Your task to perform on an android device: Open location settings Image 0: 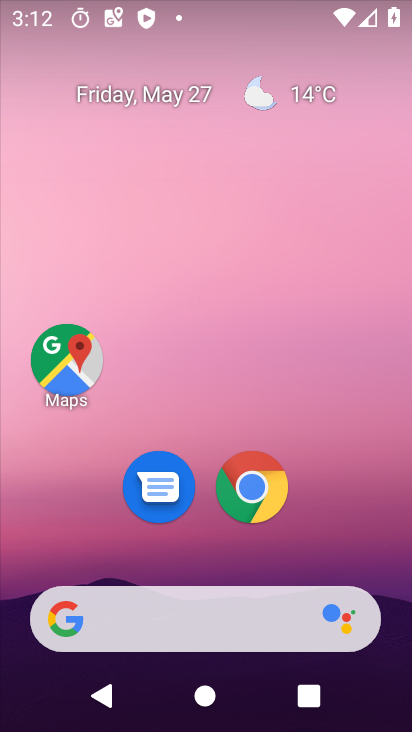
Step 0: click (303, 94)
Your task to perform on an android device: Open location settings Image 1: 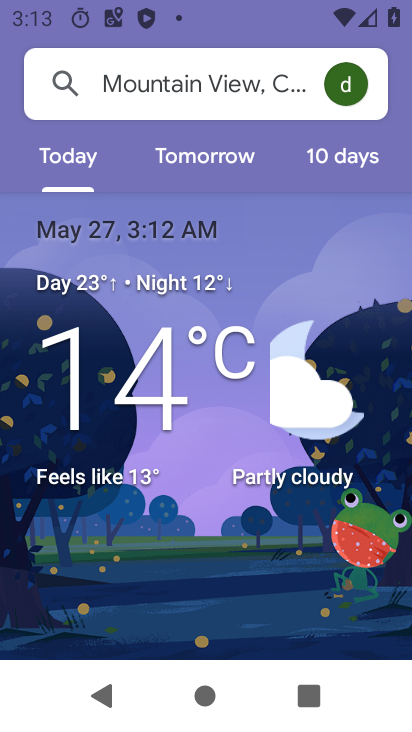
Step 1: press home button
Your task to perform on an android device: Open location settings Image 2: 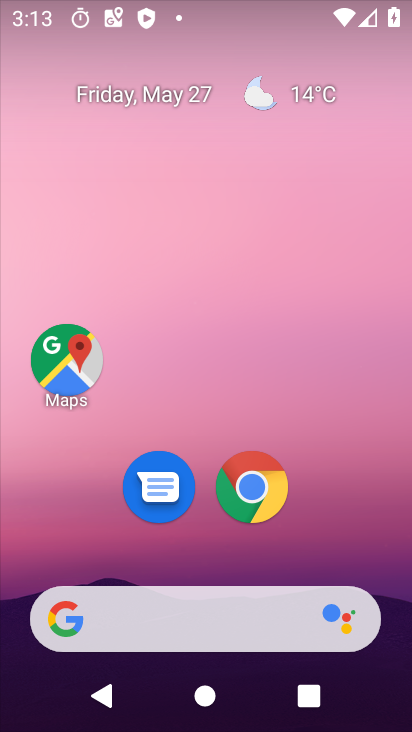
Step 2: drag from (335, 468) to (215, 4)
Your task to perform on an android device: Open location settings Image 3: 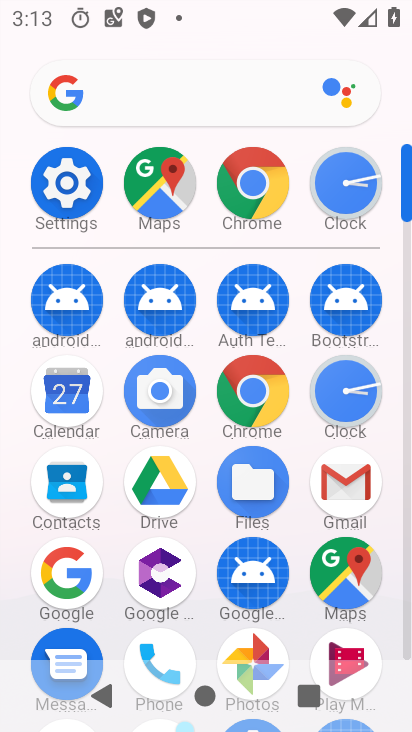
Step 3: click (55, 173)
Your task to perform on an android device: Open location settings Image 4: 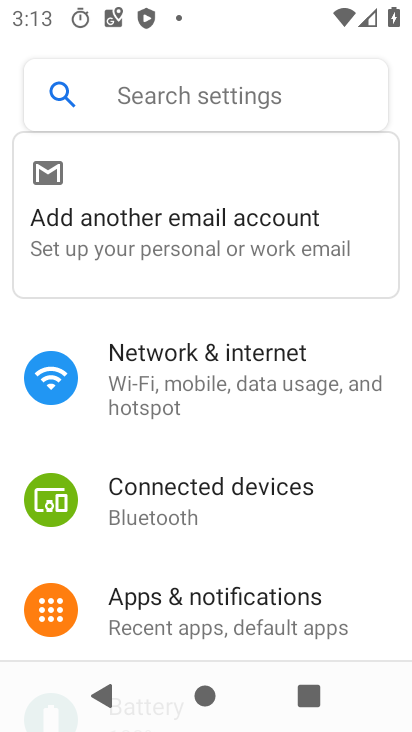
Step 4: drag from (198, 595) to (352, 158)
Your task to perform on an android device: Open location settings Image 5: 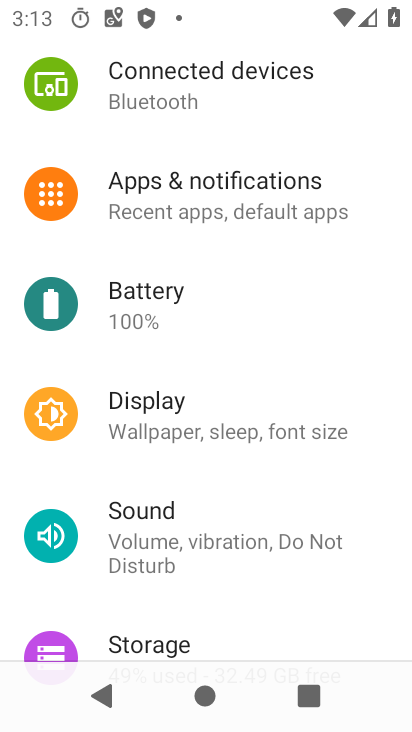
Step 5: drag from (215, 484) to (256, 97)
Your task to perform on an android device: Open location settings Image 6: 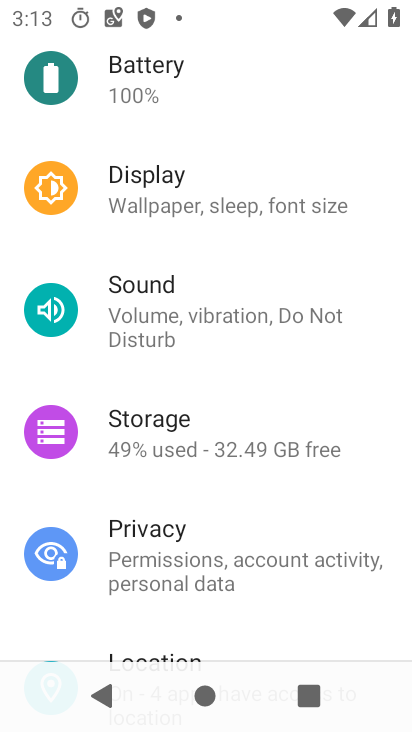
Step 6: drag from (142, 446) to (263, 136)
Your task to perform on an android device: Open location settings Image 7: 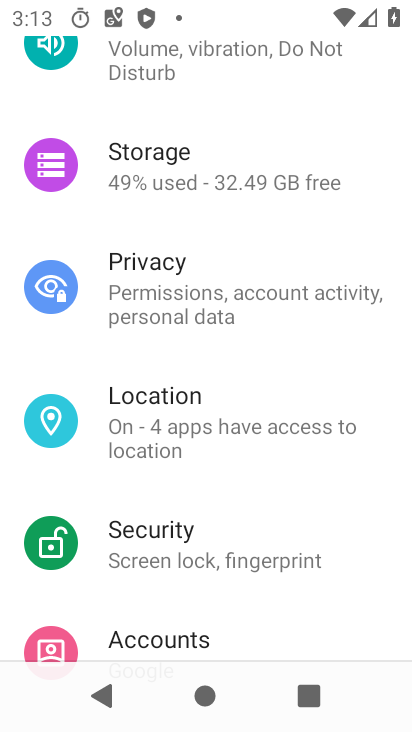
Step 7: click (142, 447)
Your task to perform on an android device: Open location settings Image 8: 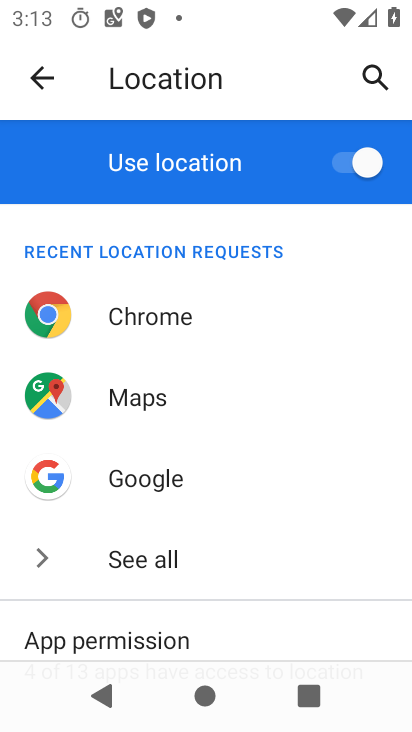
Step 8: task complete